Your task to perform on an android device: turn off javascript in the chrome app Image 0: 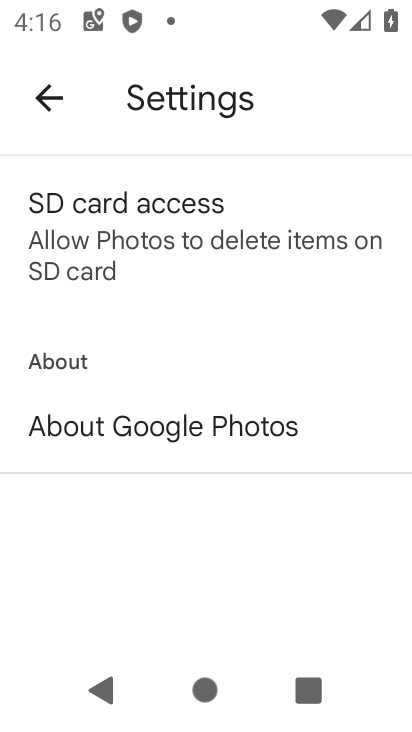
Step 0: press home button
Your task to perform on an android device: turn off javascript in the chrome app Image 1: 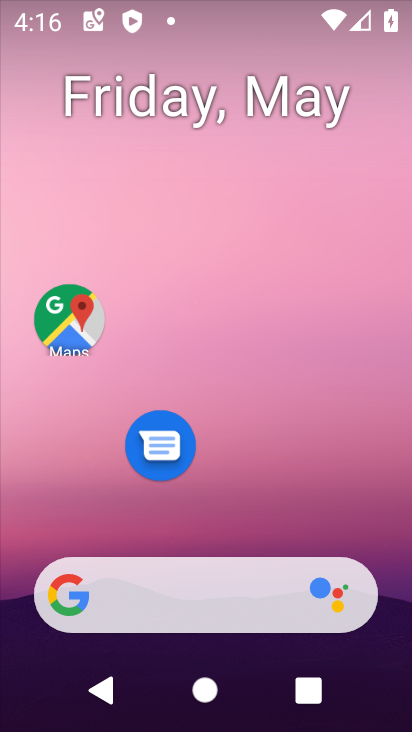
Step 1: drag from (225, 544) to (243, 13)
Your task to perform on an android device: turn off javascript in the chrome app Image 2: 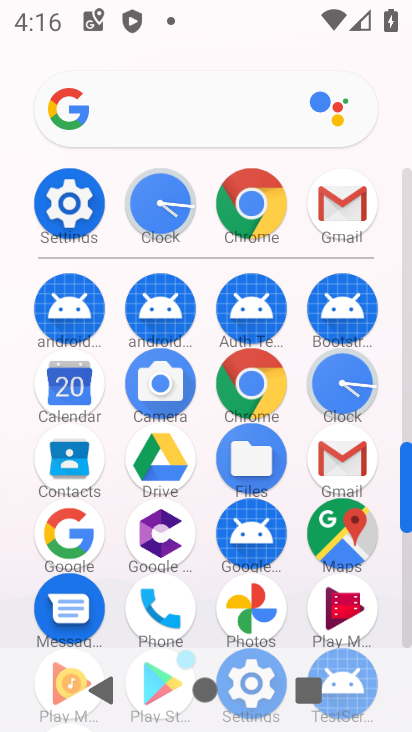
Step 2: click (265, 213)
Your task to perform on an android device: turn off javascript in the chrome app Image 3: 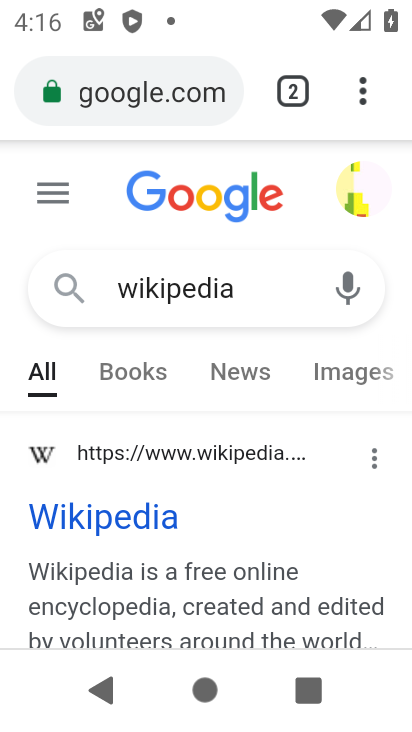
Step 3: click (358, 88)
Your task to perform on an android device: turn off javascript in the chrome app Image 4: 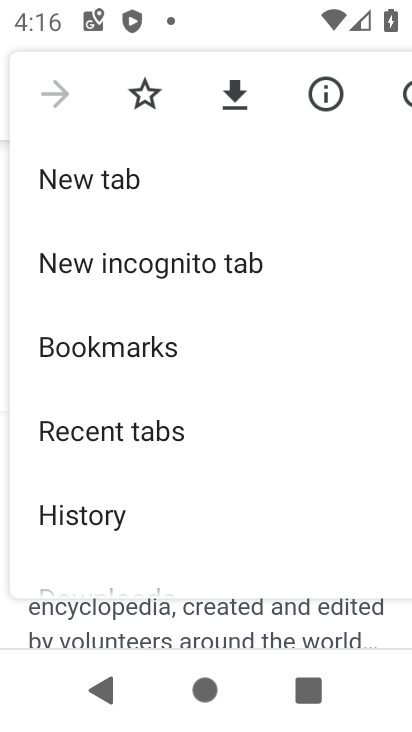
Step 4: drag from (188, 472) to (231, 134)
Your task to perform on an android device: turn off javascript in the chrome app Image 5: 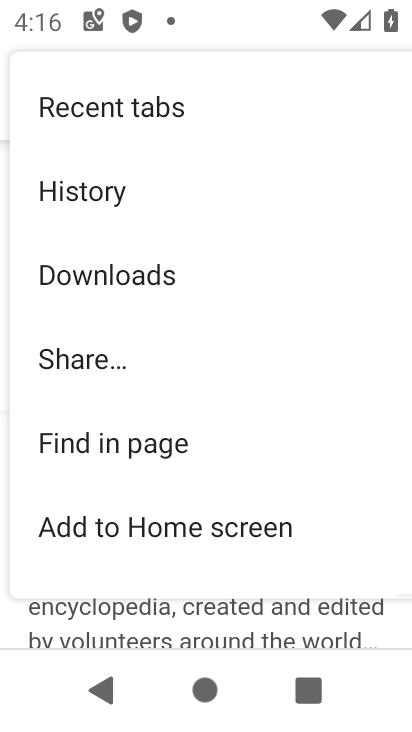
Step 5: drag from (132, 505) to (218, 93)
Your task to perform on an android device: turn off javascript in the chrome app Image 6: 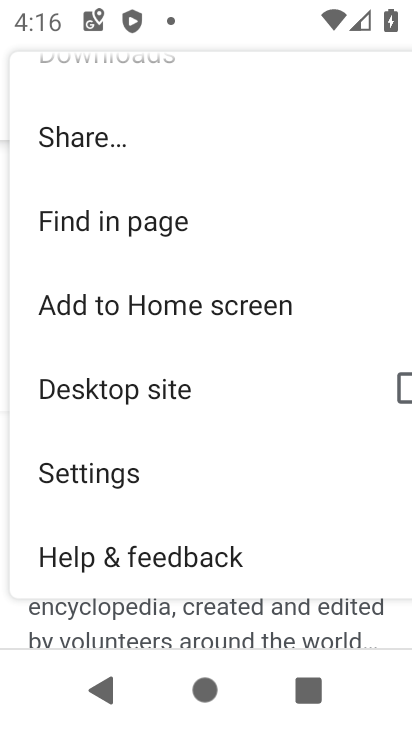
Step 6: click (103, 477)
Your task to perform on an android device: turn off javascript in the chrome app Image 7: 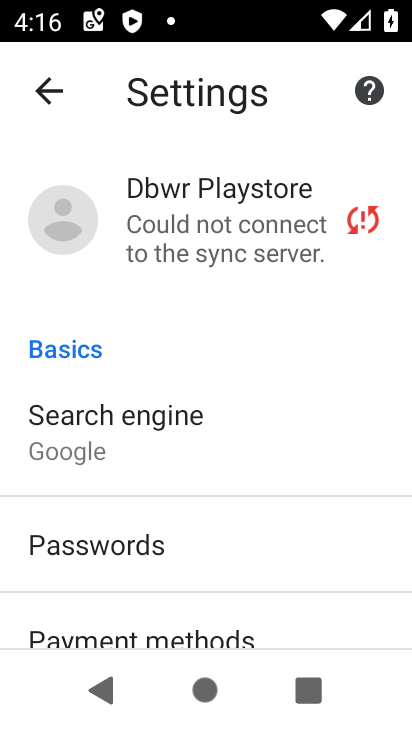
Step 7: drag from (145, 479) to (193, 192)
Your task to perform on an android device: turn off javascript in the chrome app Image 8: 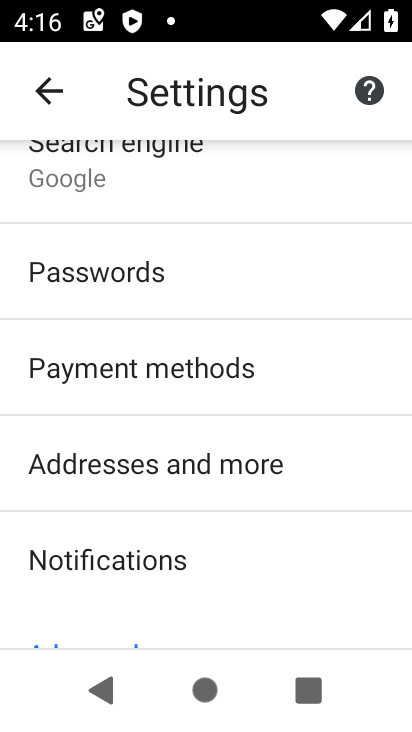
Step 8: drag from (169, 490) to (176, 266)
Your task to perform on an android device: turn off javascript in the chrome app Image 9: 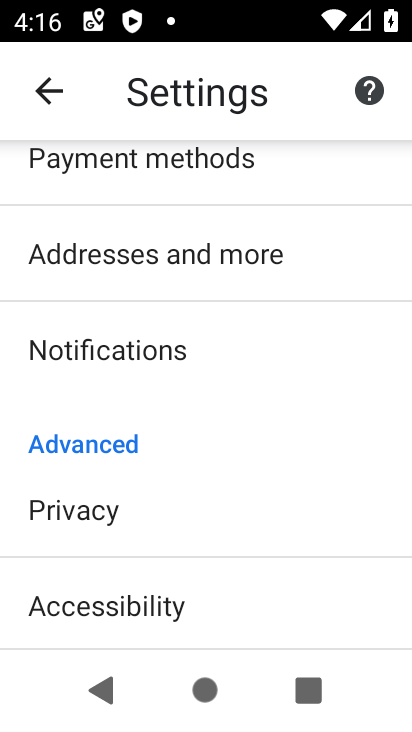
Step 9: drag from (143, 582) to (173, 372)
Your task to perform on an android device: turn off javascript in the chrome app Image 10: 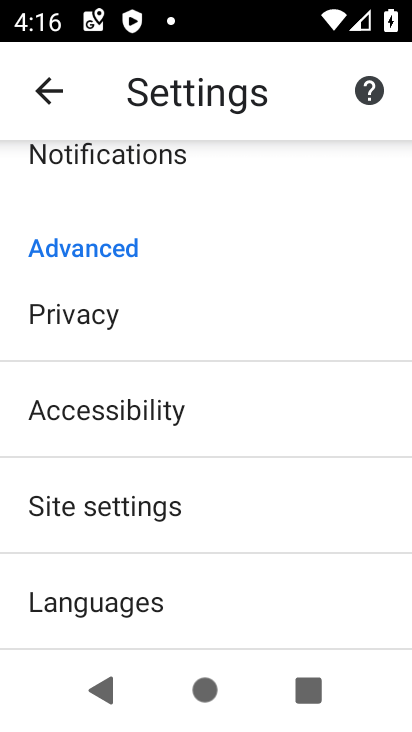
Step 10: click (131, 499)
Your task to perform on an android device: turn off javascript in the chrome app Image 11: 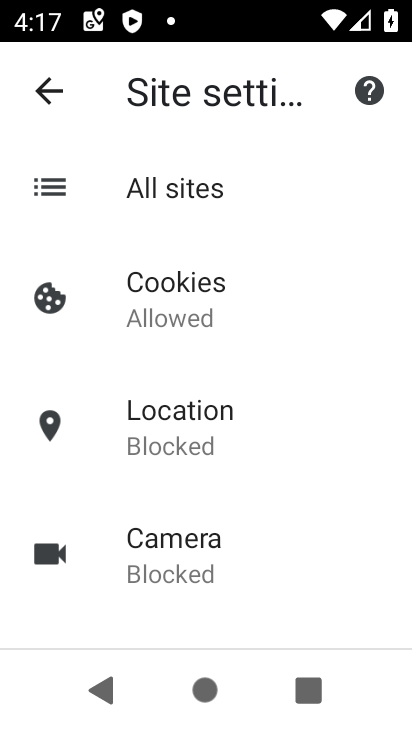
Step 11: drag from (170, 505) to (201, 244)
Your task to perform on an android device: turn off javascript in the chrome app Image 12: 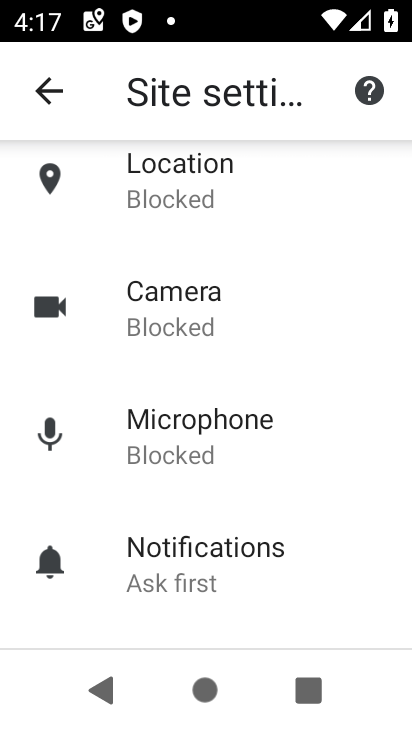
Step 12: drag from (180, 507) to (208, 264)
Your task to perform on an android device: turn off javascript in the chrome app Image 13: 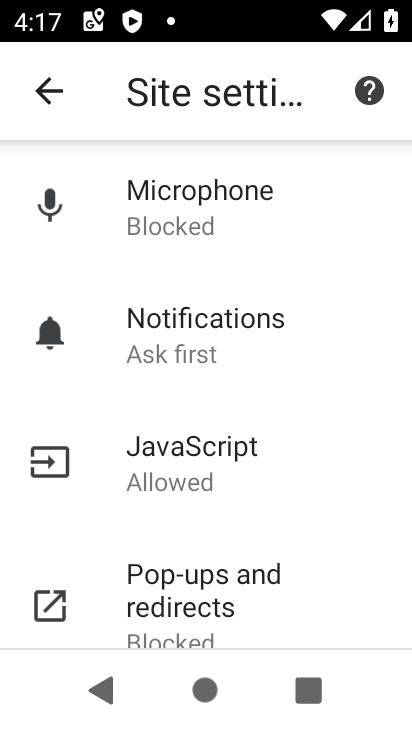
Step 13: click (208, 473)
Your task to perform on an android device: turn off javascript in the chrome app Image 14: 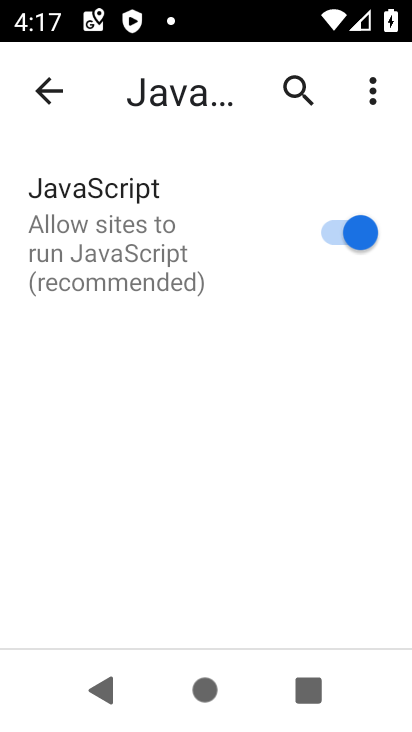
Step 14: click (312, 239)
Your task to perform on an android device: turn off javascript in the chrome app Image 15: 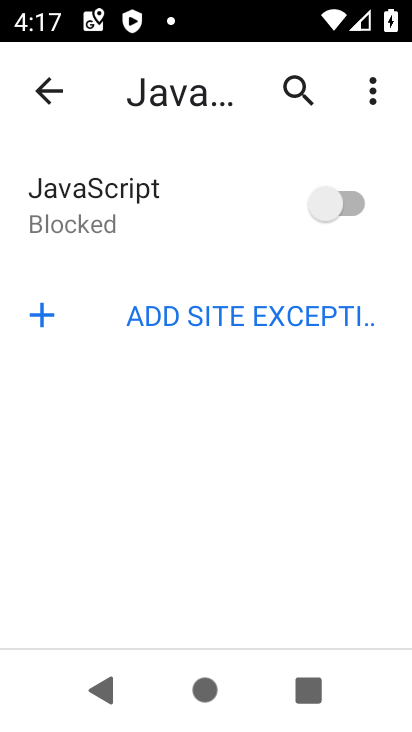
Step 15: task complete